Your task to perform on an android device: Open the phone app and click the voicemail tab. Image 0: 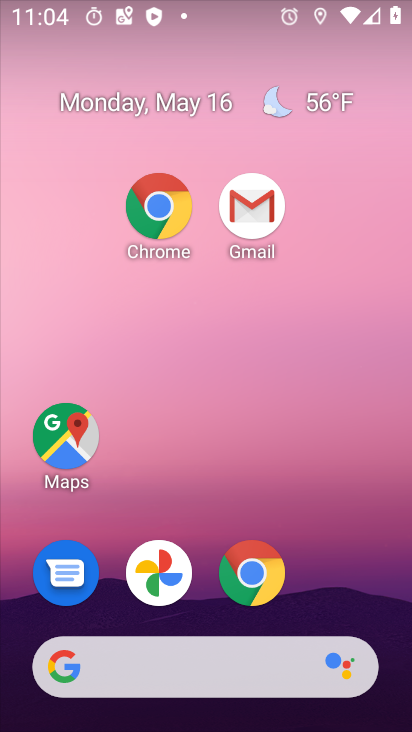
Step 0: drag from (319, 586) to (148, 124)
Your task to perform on an android device: Open the phone app and click the voicemail tab. Image 1: 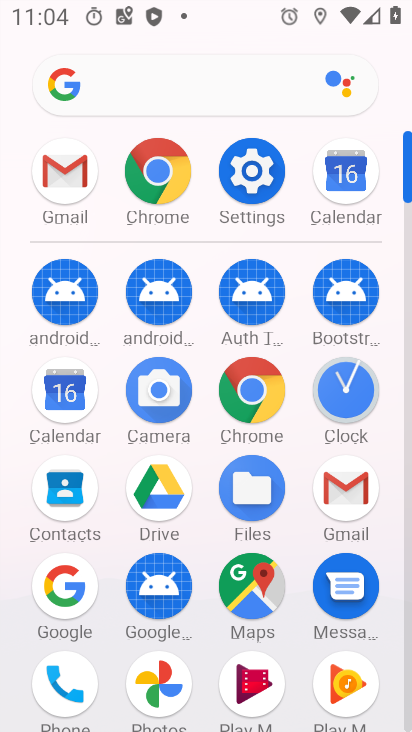
Step 1: click (70, 668)
Your task to perform on an android device: Open the phone app and click the voicemail tab. Image 2: 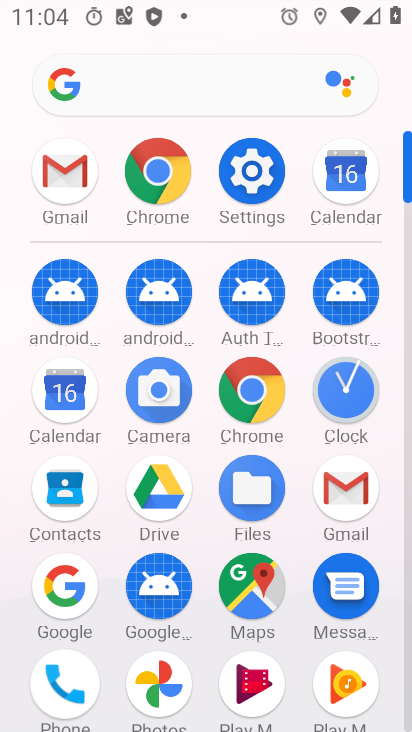
Step 2: click (68, 666)
Your task to perform on an android device: Open the phone app and click the voicemail tab. Image 3: 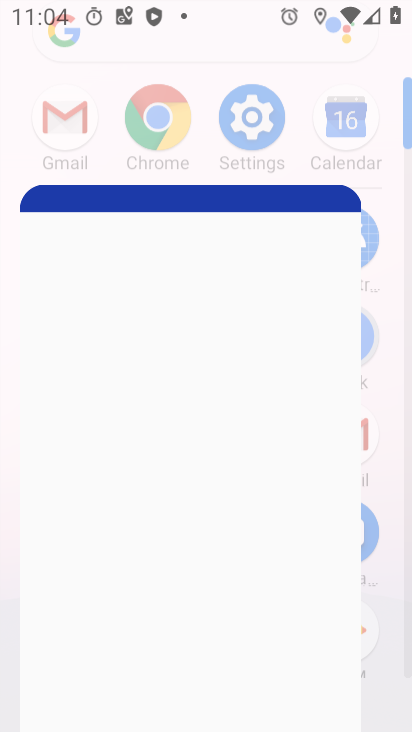
Step 3: click (71, 668)
Your task to perform on an android device: Open the phone app and click the voicemail tab. Image 4: 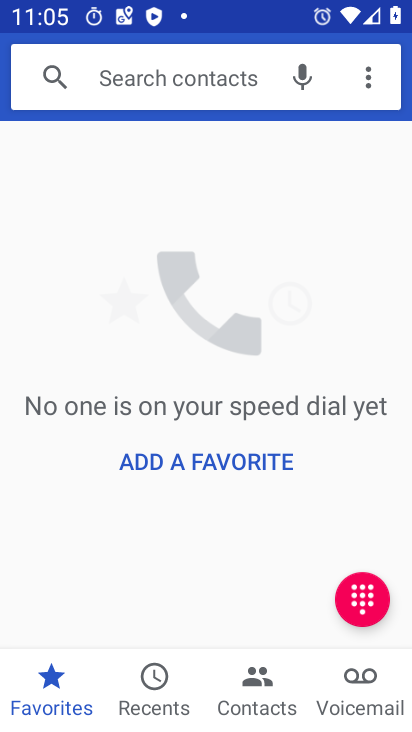
Step 4: click (373, 686)
Your task to perform on an android device: Open the phone app and click the voicemail tab. Image 5: 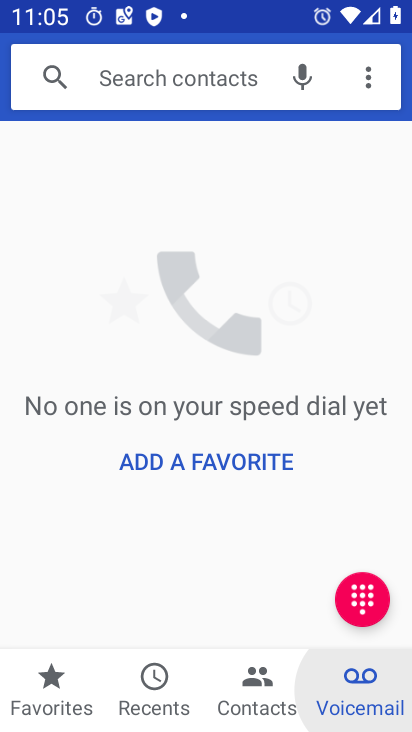
Step 5: click (373, 686)
Your task to perform on an android device: Open the phone app and click the voicemail tab. Image 6: 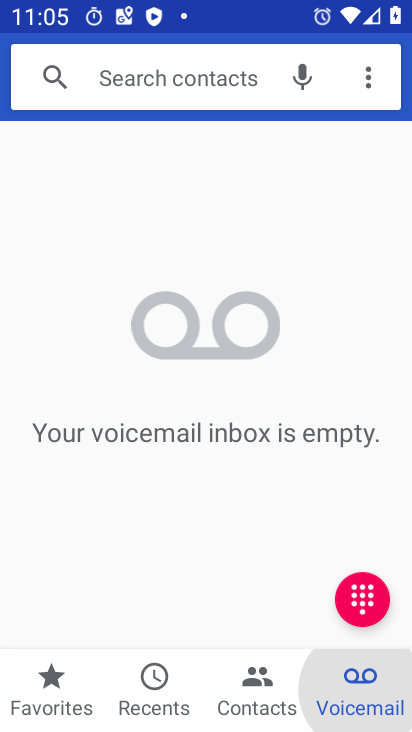
Step 6: click (367, 671)
Your task to perform on an android device: Open the phone app and click the voicemail tab. Image 7: 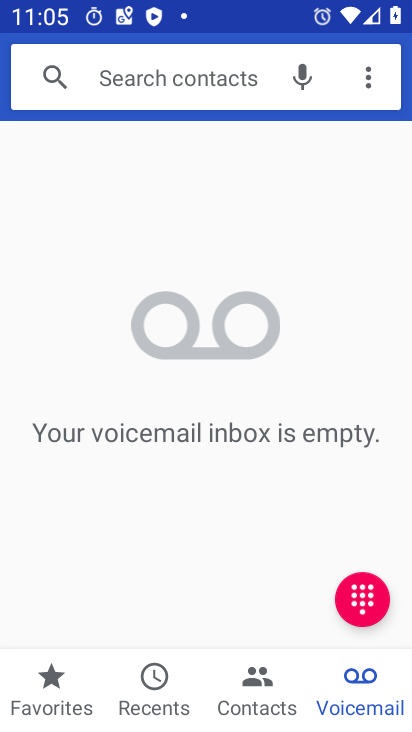
Step 7: task complete